Your task to perform on an android device: turn on priority inbox in the gmail app Image 0: 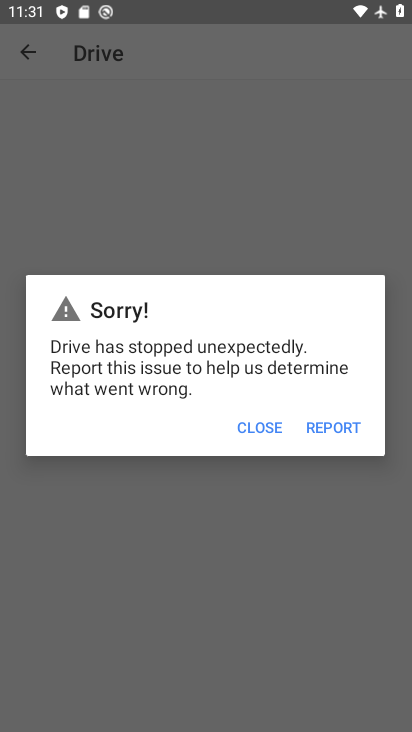
Step 0: press back button
Your task to perform on an android device: turn on priority inbox in the gmail app Image 1: 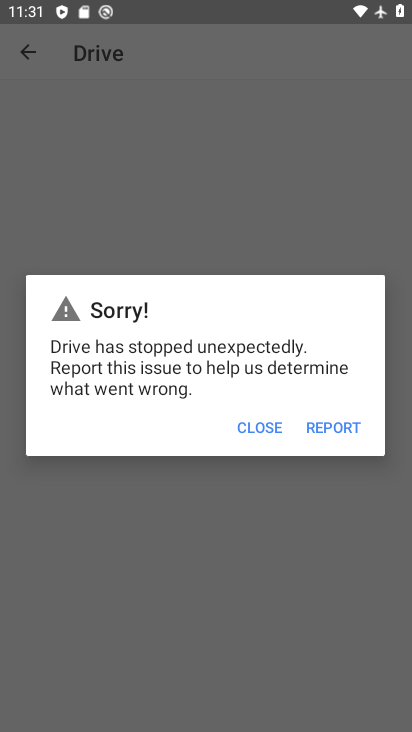
Step 1: press home button
Your task to perform on an android device: turn on priority inbox in the gmail app Image 2: 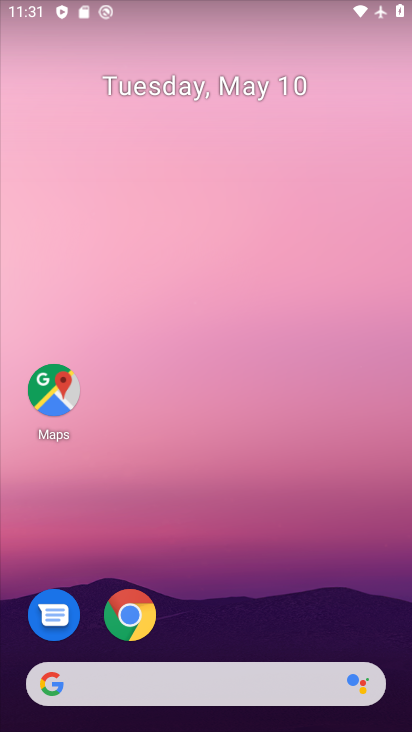
Step 2: drag from (256, 568) to (243, 94)
Your task to perform on an android device: turn on priority inbox in the gmail app Image 3: 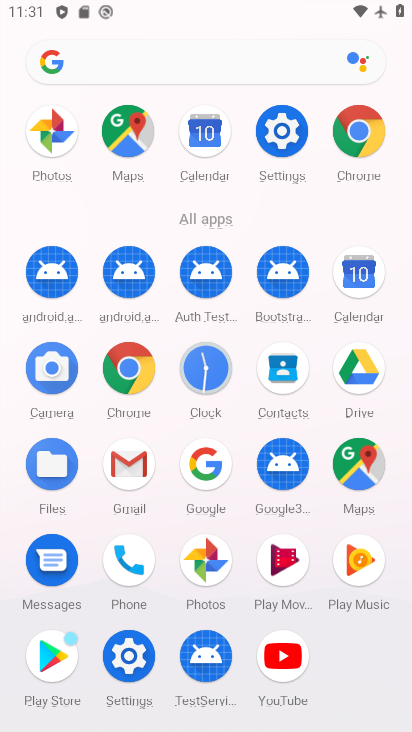
Step 3: drag from (11, 576) to (10, 228)
Your task to perform on an android device: turn on priority inbox in the gmail app Image 4: 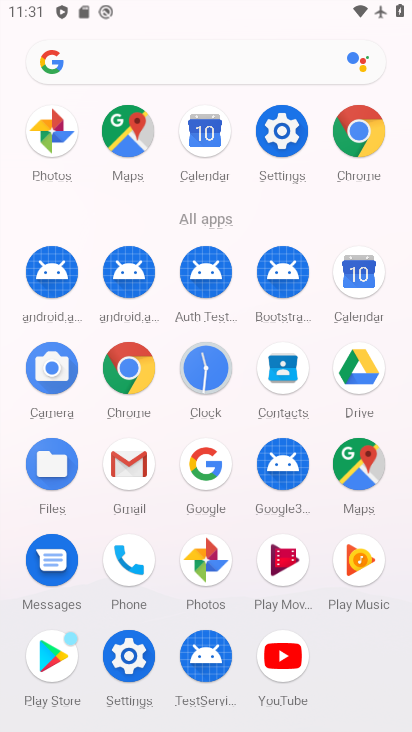
Step 4: click (130, 461)
Your task to perform on an android device: turn on priority inbox in the gmail app Image 5: 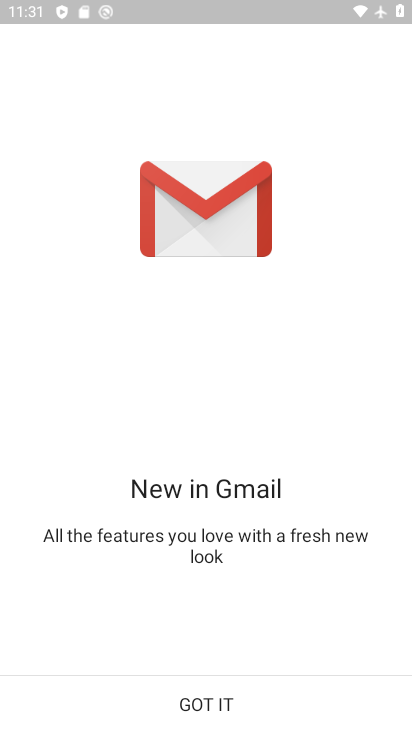
Step 5: click (175, 693)
Your task to perform on an android device: turn on priority inbox in the gmail app Image 6: 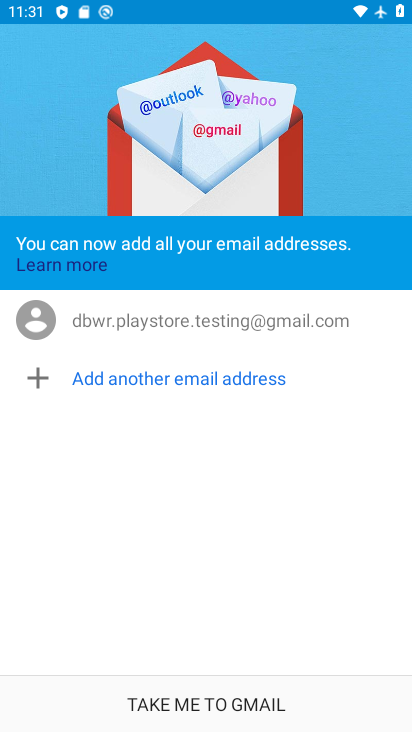
Step 6: click (175, 693)
Your task to perform on an android device: turn on priority inbox in the gmail app Image 7: 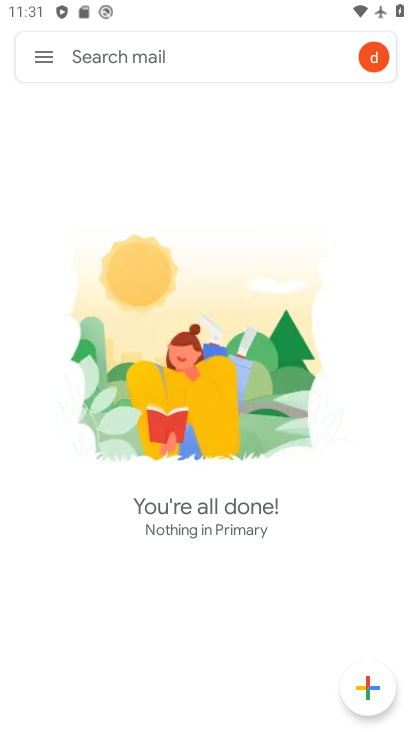
Step 7: click (34, 47)
Your task to perform on an android device: turn on priority inbox in the gmail app Image 8: 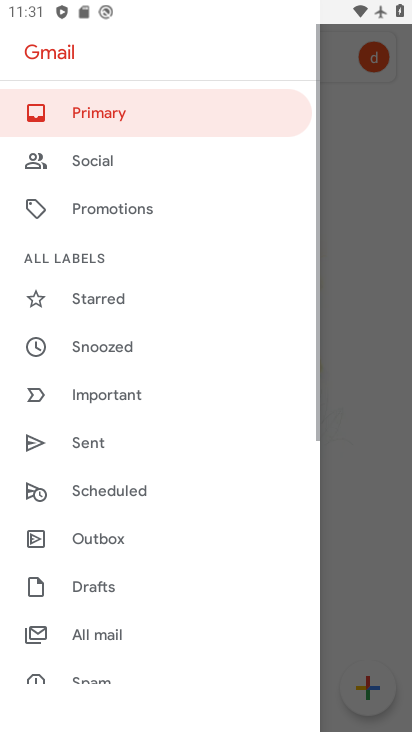
Step 8: drag from (181, 613) to (205, 159)
Your task to perform on an android device: turn on priority inbox in the gmail app Image 9: 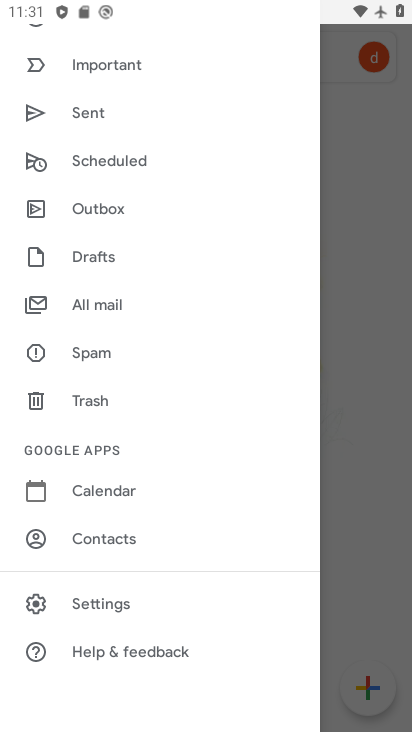
Step 9: click (145, 598)
Your task to perform on an android device: turn on priority inbox in the gmail app Image 10: 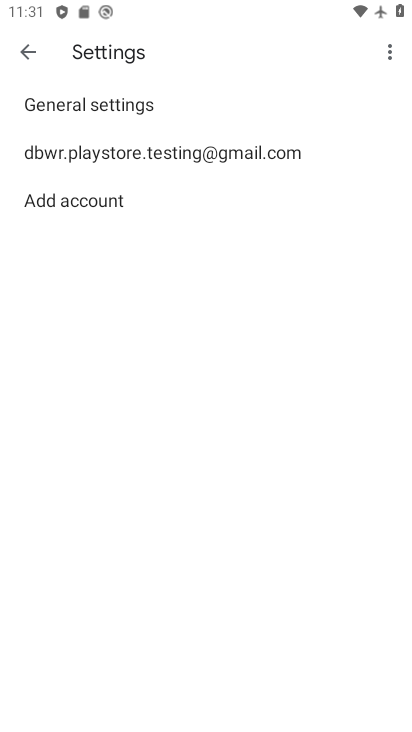
Step 10: click (131, 156)
Your task to perform on an android device: turn on priority inbox in the gmail app Image 11: 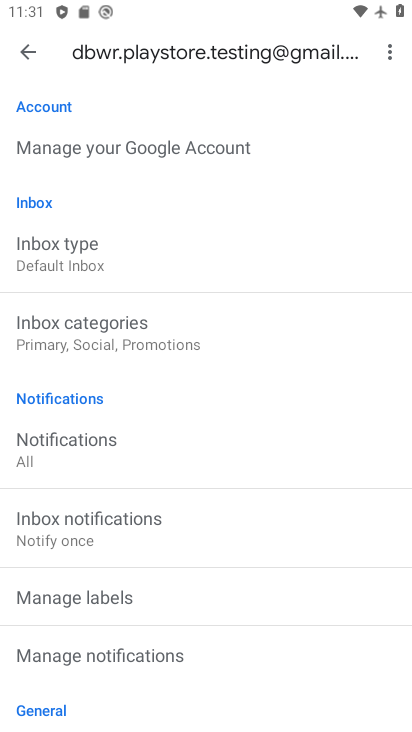
Step 11: drag from (207, 541) to (235, 120)
Your task to perform on an android device: turn on priority inbox in the gmail app Image 12: 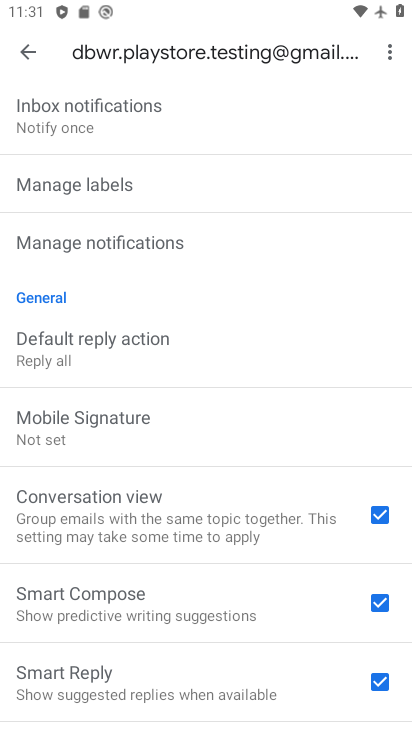
Step 12: drag from (222, 588) to (229, 82)
Your task to perform on an android device: turn on priority inbox in the gmail app Image 13: 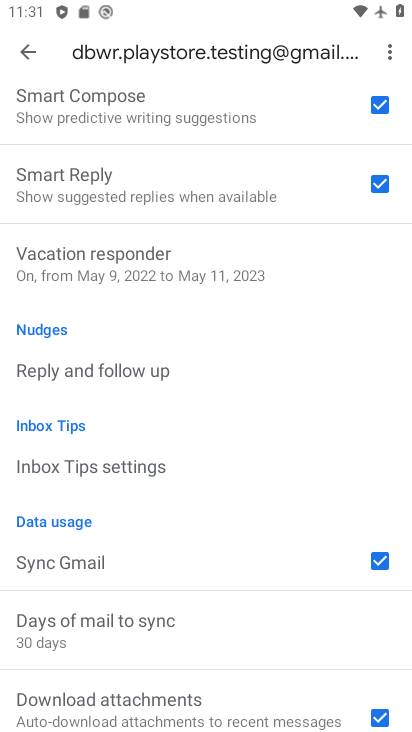
Step 13: drag from (211, 550) to (208, 107)
Your task to perform on an android device: turn on priority inbox in the gmail app Image 14: 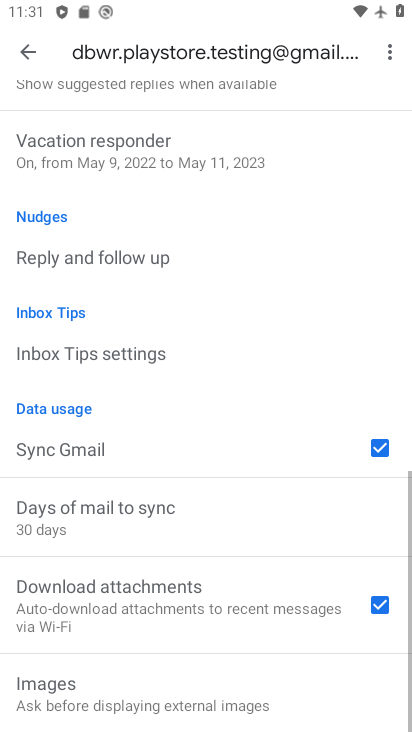
Step 14: drag from (205, 155) to (209, 568)
Your task to perform on an android device: turn on priority inbox in the gmail app Image 15: 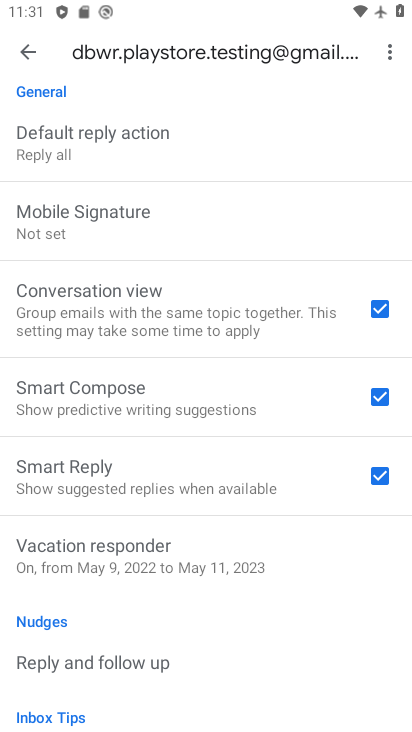
Step 15: drag from (192, 153) to (196, 570)
Your task to perform on an android device: turn on priority inbox in the gmail app Image 16: 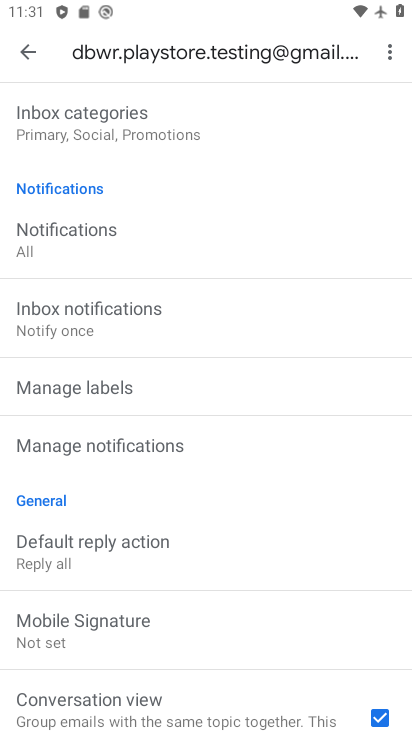
Step 16: drag from (226, 134) to (223, 561)
Your task to perform on an android device: turn on priority inbox in the gmail app Image 17: 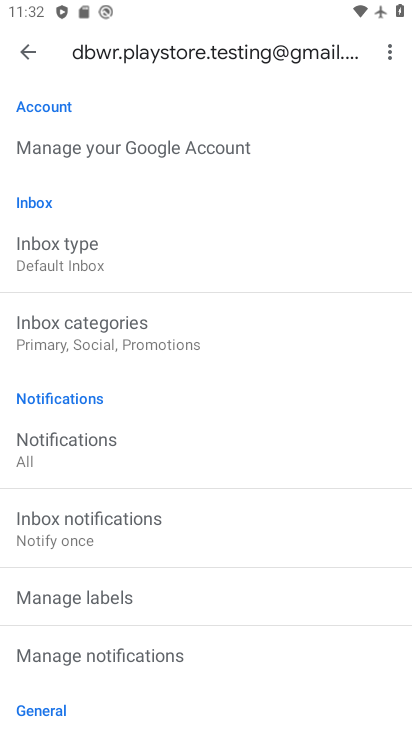
Step 17: drag from (214, 420) to (214, 316)
Your task to perform on an android device: turn on priority inbox in the gmail app Image 18: 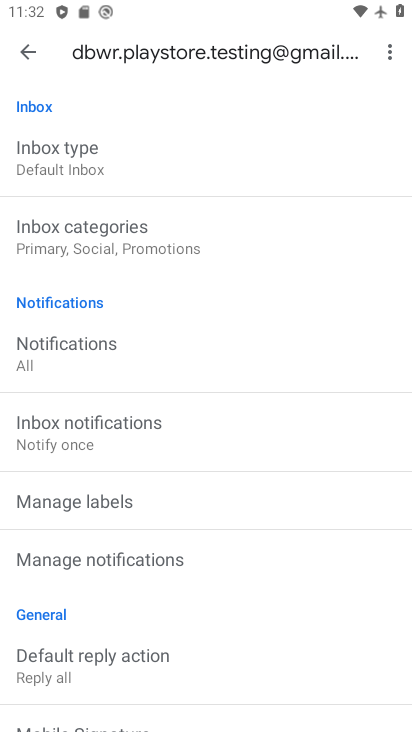
Step 18: click (149, 220)
Your task to perform on an android device: turn on priority inbox in the gmail app Image 19: 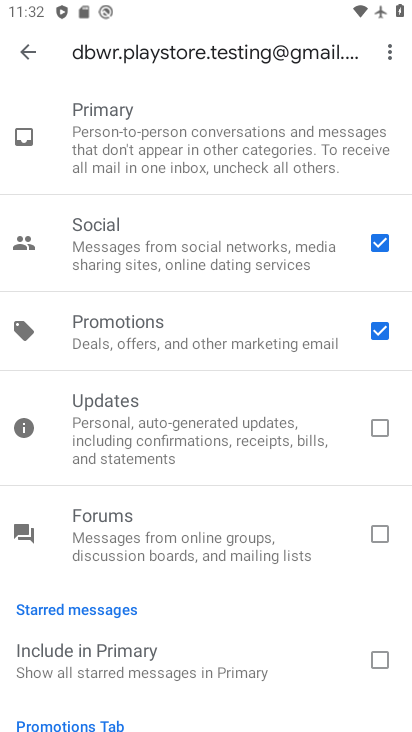
Step 19: click (374, 325)
Your task to perform on an android device: turn on priority inbox in the gmail app Image 20: 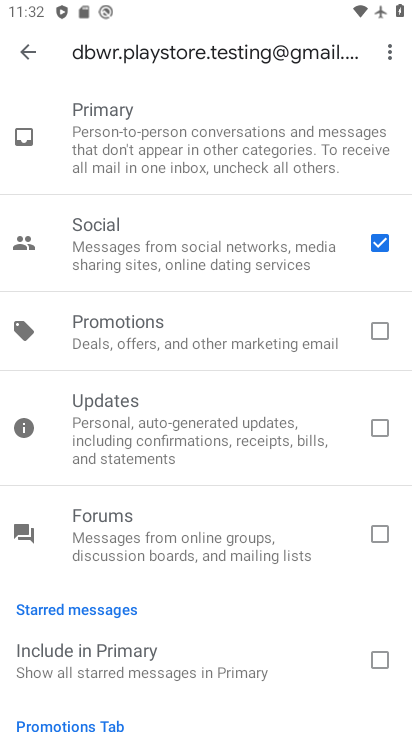
Step 20: click (384, 333)
Your task to perform on an android device: turn on priority inbox in the gmail app Image 21: 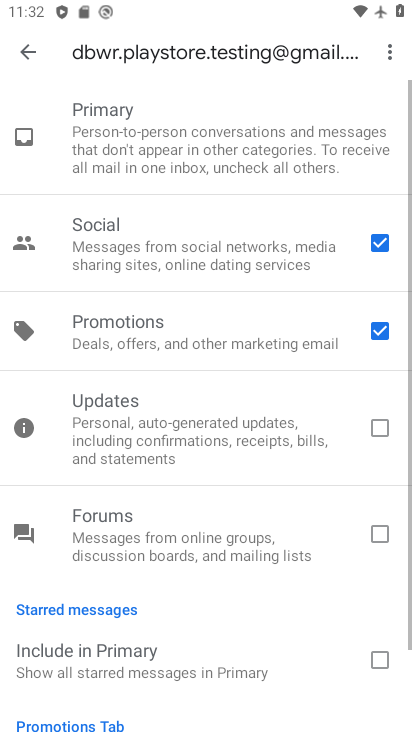
Step 21: click (34, 55)
Your task to perform on an android device: turn on priority inbox in the gmail app Image 22: 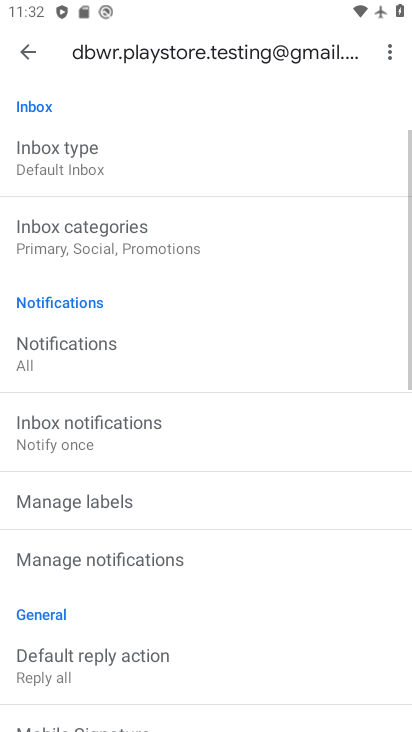
Step 22: click (33, 55)
Your task to perform on an android device: turn on priority inbox in the gmail app Image 23: 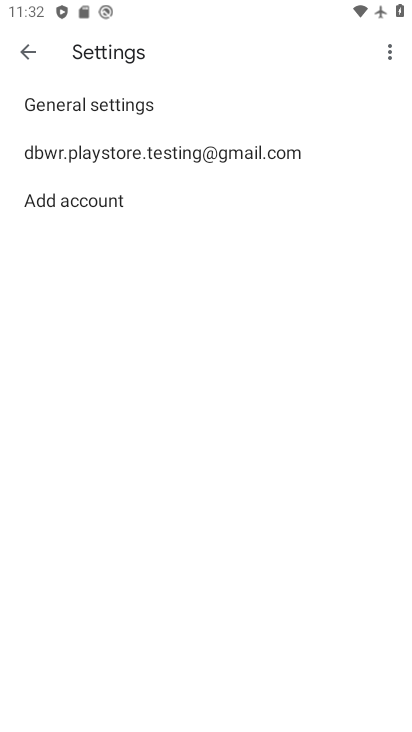
Step 23: click (33, 55)
Your task to perform on an android device: turn on priority inbox in the gmail app Image 24: 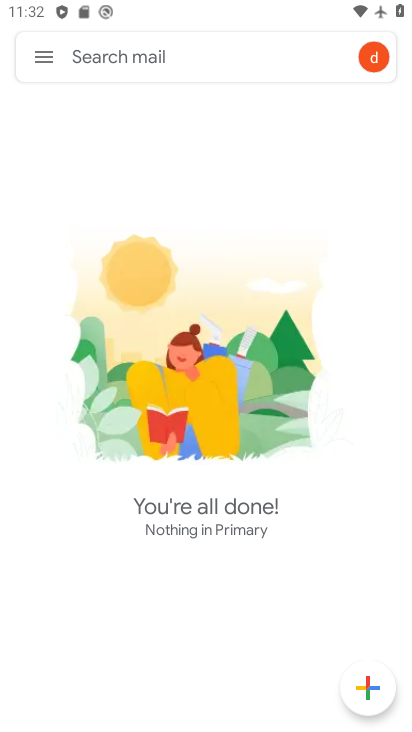
Step 24: click (33, 55)
Your task to perform on an android device: turn on priority inbox in the gmail app Image 25: 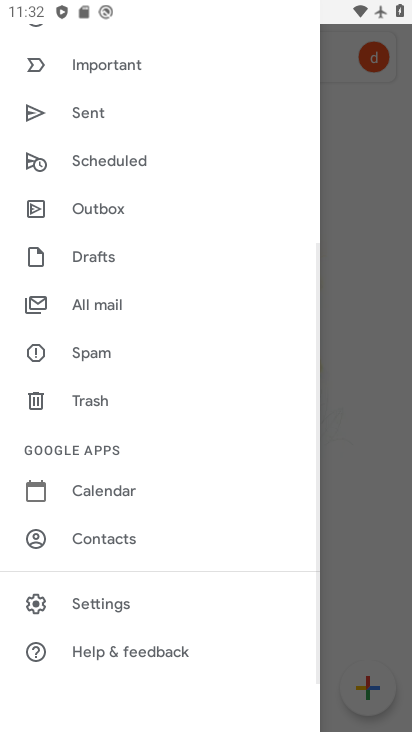
Step 25: click (126, 598)
Your task to perform on an android device: turn on priority inbox in the gmail app Image 26: 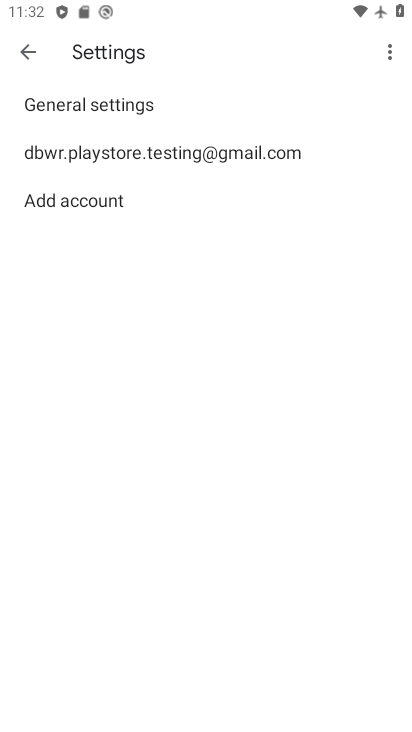
Step 26: click (111, 141)
Your task to perform on an android device: turn on priority inbox in the gmail app Image 27: 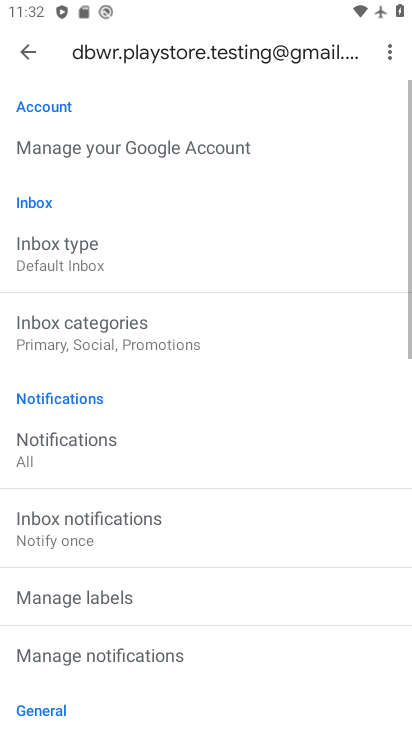
Step 27: click (111, 247)
Your task to perform on an android device: turn on priority inbox in the gmail app Image 28: 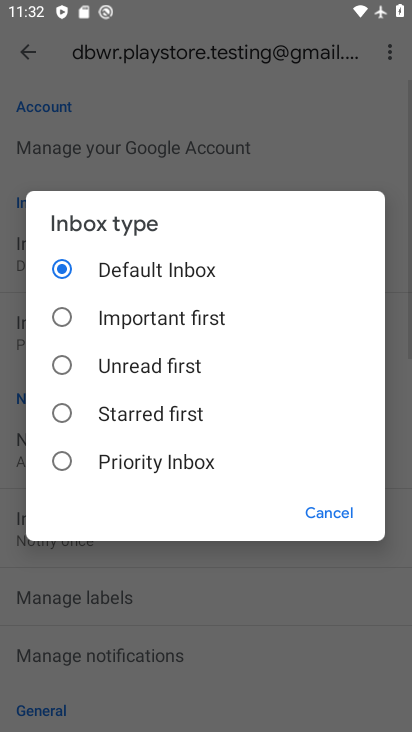
Step 28: click (116, 454)
Your task to perform on an android device: turn on priority inbox in the gmail app Image 29: 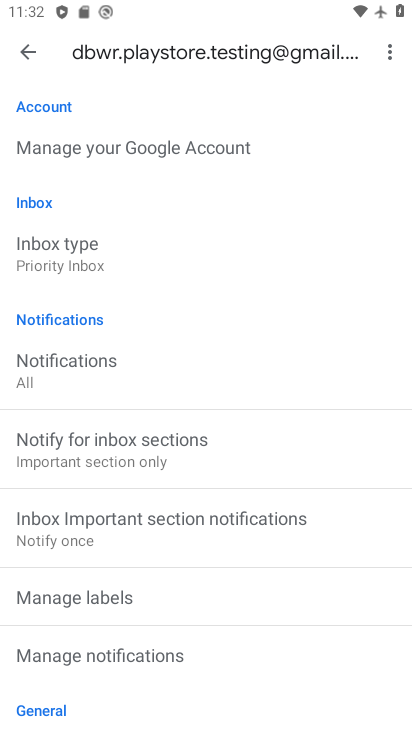
Step 29: task complete